Your task to perform on an android device: Go to Amazon Image 0: 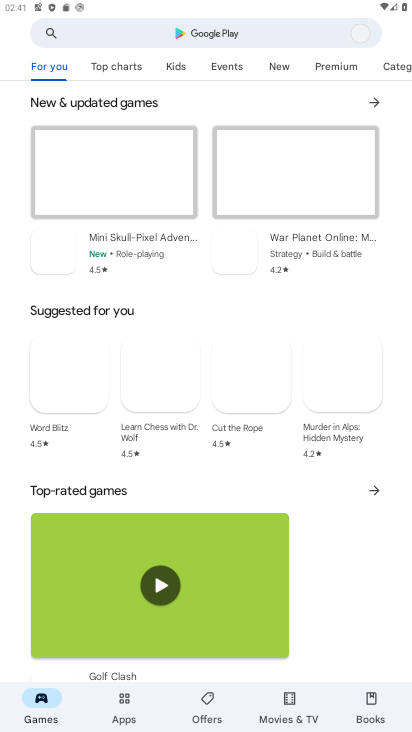
Step 0: press home button
Your task to perform on an android device: Go to Amazon Image 1: 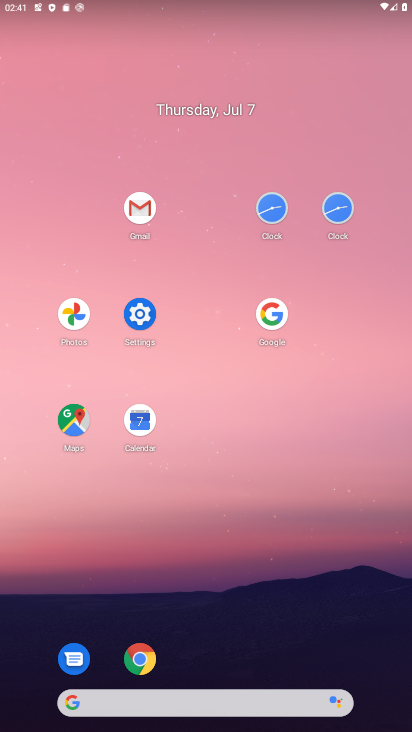
Step 1: click (136, 661)
Your task to perform on an android device: Go to Amazon Image 2: 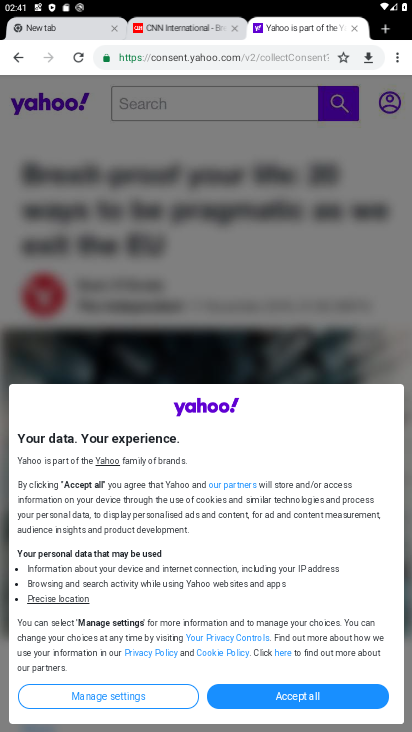
Step 2: click (391, 31)
Your task to perform on an android device: Go to Amazon Image 3: 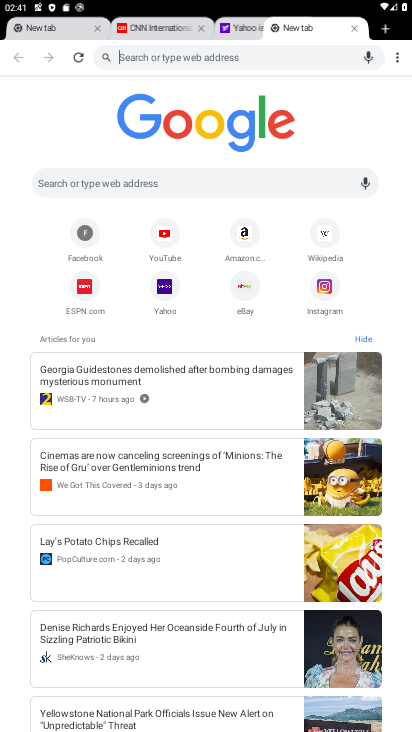
Step 3: click (245, 236)
Your task to perform on an android device: Go to Amazon Image 4: 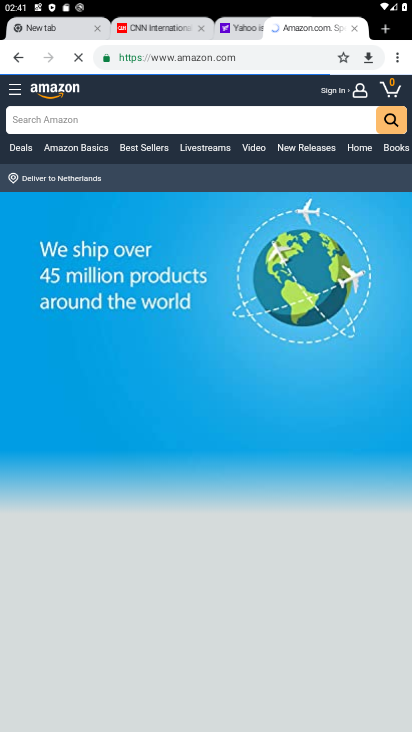
Step 4: task complete